Your task to perform on an android device: star an email in the gmail app Image 0: 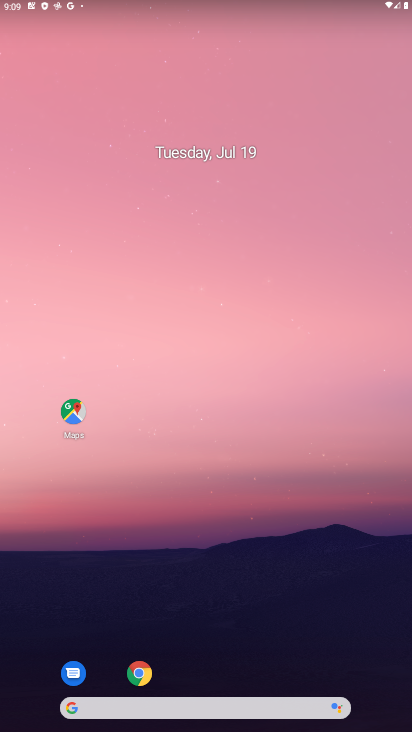
Step 0: drag from (264, 689) to (246, 496)
Your task to perform on an android device: star an email in the gmail app Image 1: 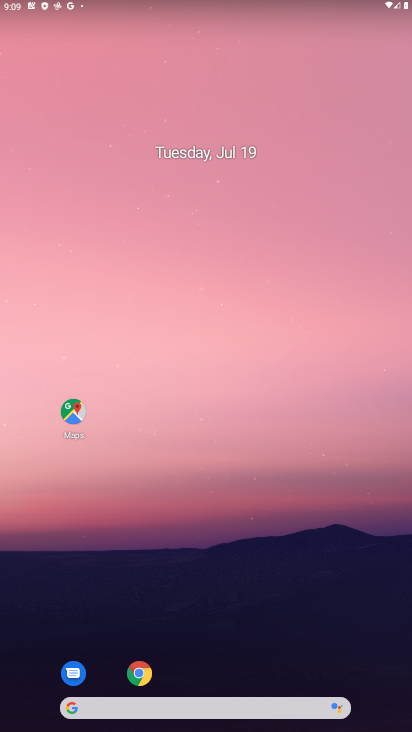
Step 1: drag from (247, 660) to (240, 302)
Your task to perform on an android device: star an email in the gmail app Image 2: 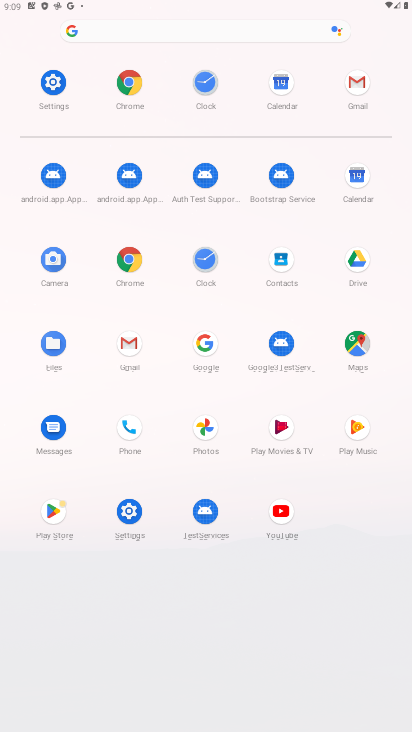
Step 2: click (367, 96)
Your task to perform on an android device: star an email in the gmail app Image 3: 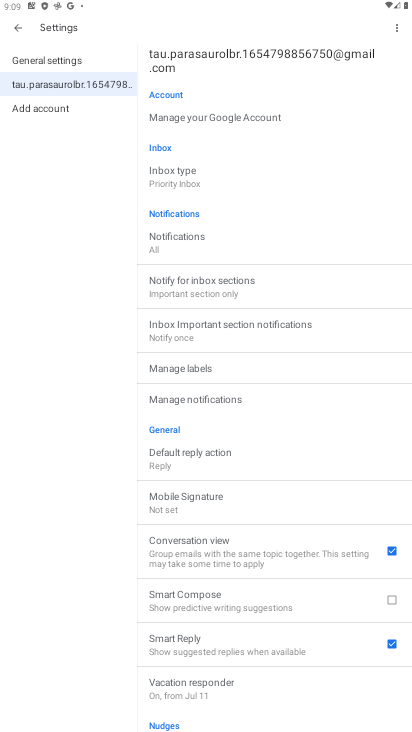
Step 3: click (18, 26)
Your task to perform on an android device: star an email in the gmail app Image 4: 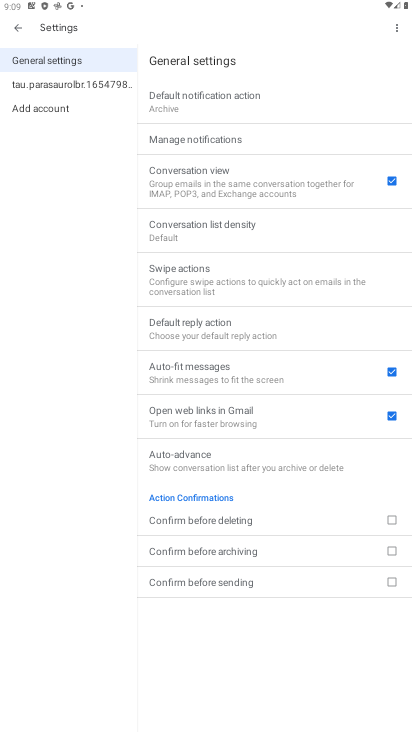
Step 4: click (18, 26)
Your task to perform on an android device: star an email in the gmail app Image 5: 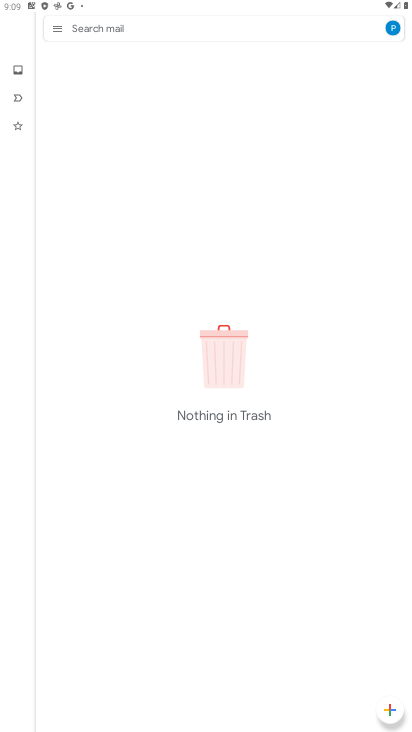
Step 5: task complete